Your task to perform on an android device: toggle improve location accuracy Image 0: 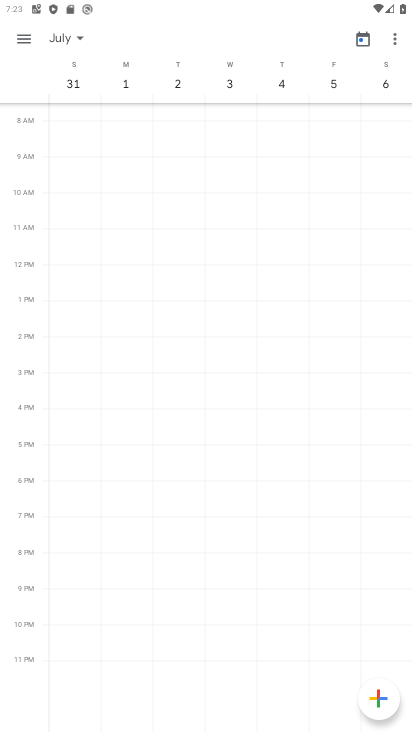
Step 0: drag from (213, 659) to (225, 530)
Your task to perform on an android device: toggle improve location accuracy Image 1: 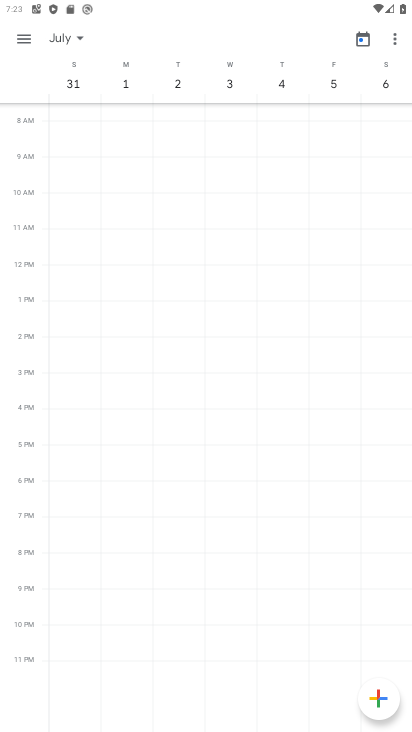
Step 1: press home button
Your task to perform on an android device: toggle improve location accuracy Image 2: 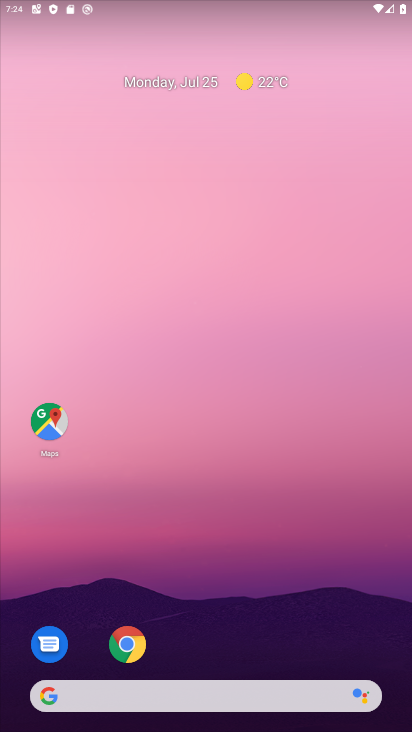
Step 2: drag from (228, 659) to (222, 41)
Your task to perform on an android device: toggle improve location accuracy Image 3: 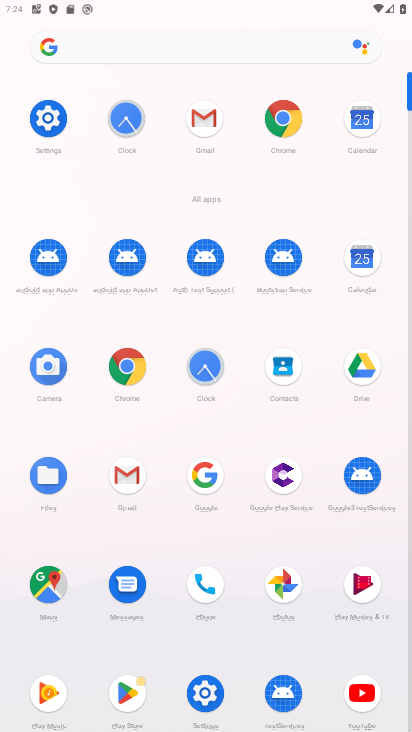
Step 3: click (47, 111)
Your task to perform on an android device: toggle improve location accuracy Image 4: 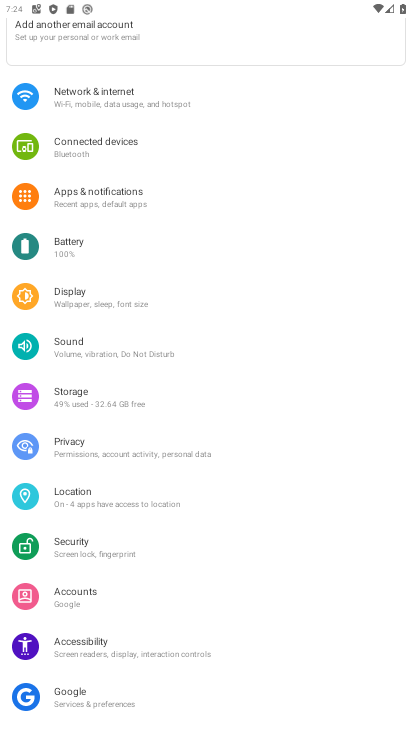
Step 4: click (107, 488)
Your task to perform on an android device: toggle improve location accuracy Image 5: 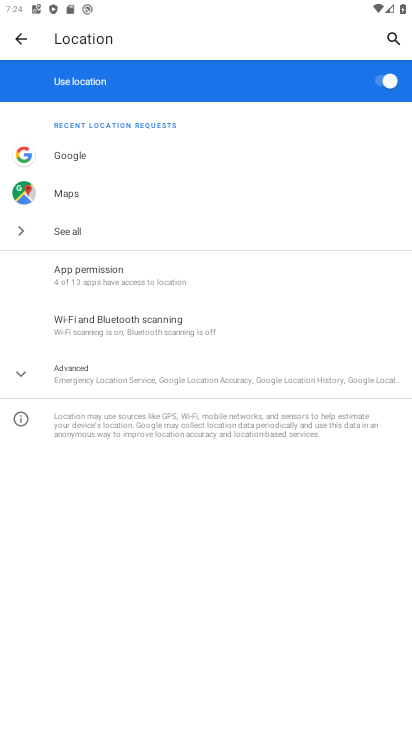
Step 5: click (18, 365)
Your task to perform on an android device: toggle improve location accuracy Image 6: 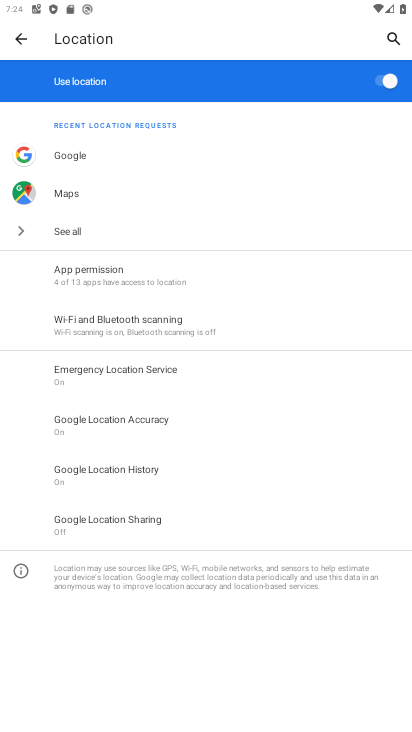
Step 6: click (187, 419)
Your task to perform on an android device: toggle improve location accuracy Image 7: 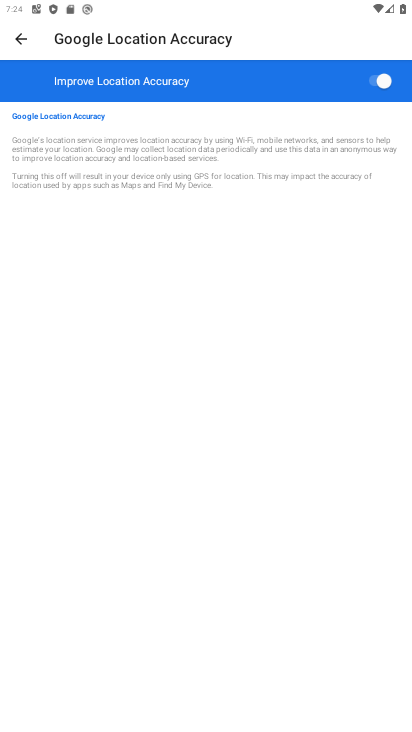
Step 7: click (379, 79)
Your task to perform on an android device: toggle improve location accuracy Image 8: 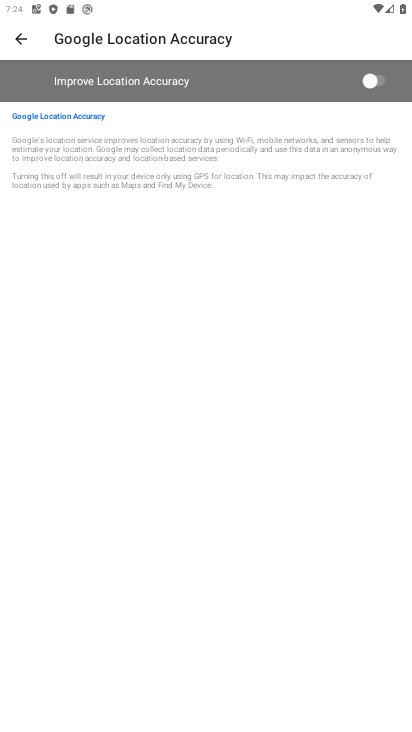
Step 8: task complete